Your task to perform on an android device: Go to Amazon Image 0: 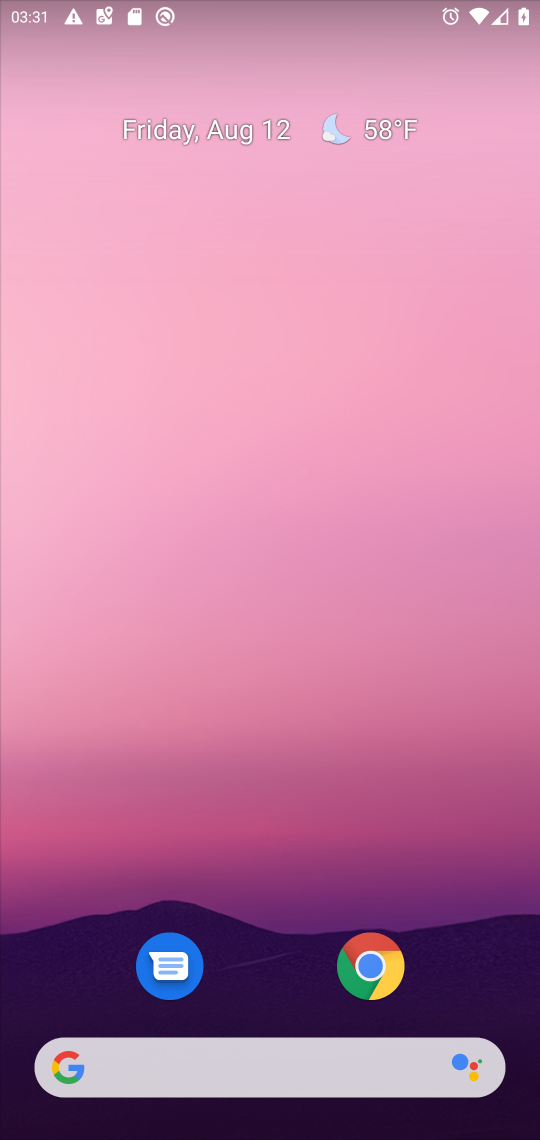
Step 0: drag from (286, 882) to (375, 41)
Your task to perform on an android device: Go to Amazon Image 1: 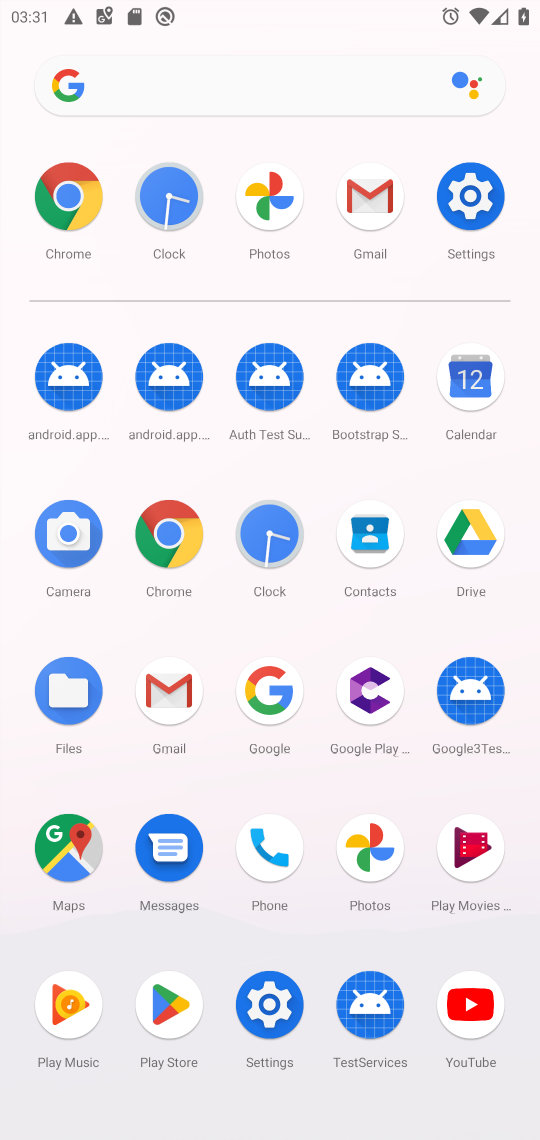
Step 1: click (172, 532)
Your task to perform on an android device: Go to Amazon Image 2: 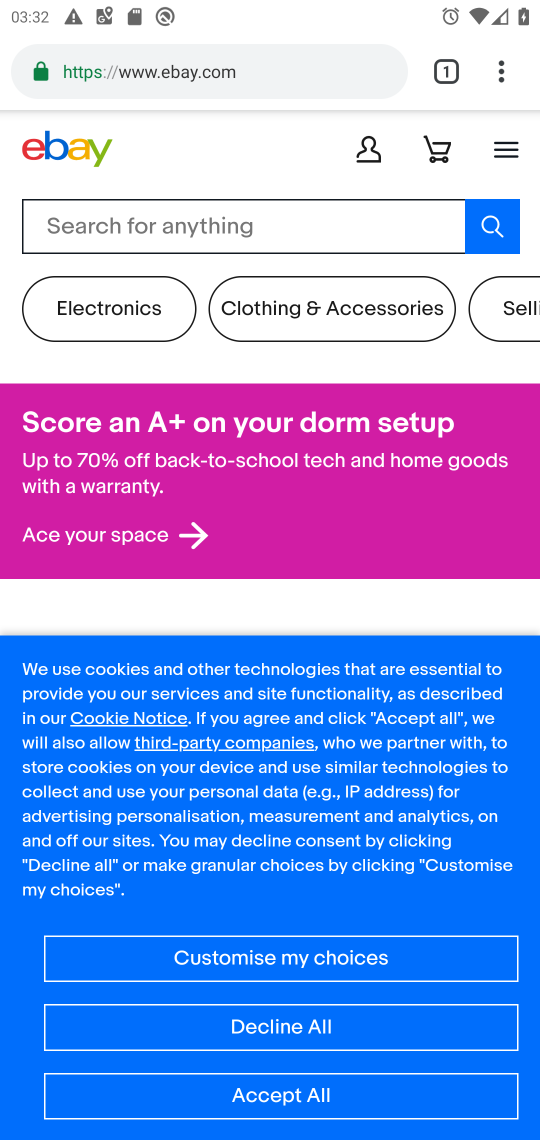
Step 2: click (252, 66)
Your task to perform on an android device: Go to Amazon Image 3: 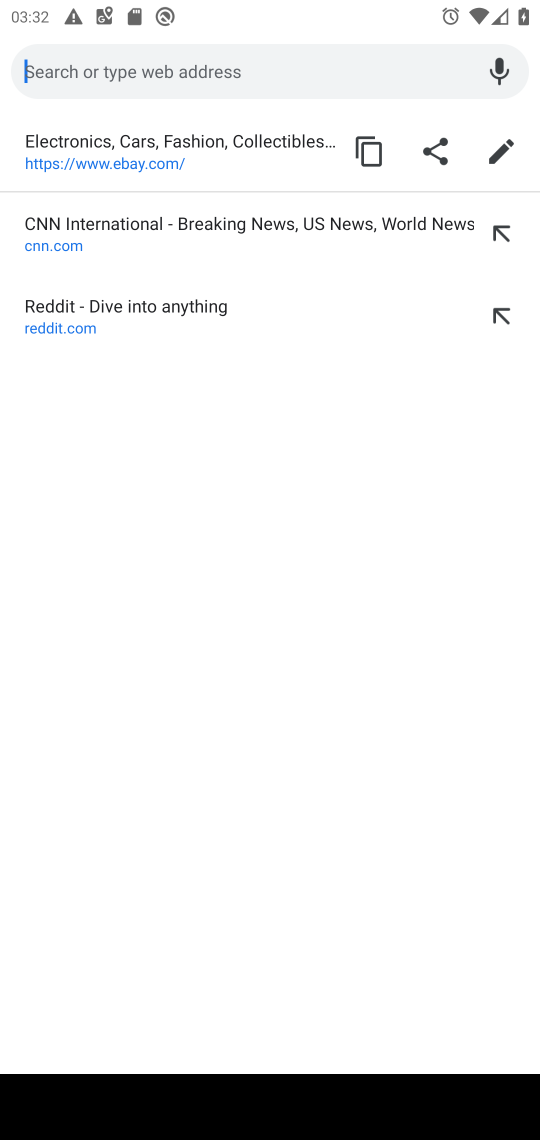
Step 3: type "amazon"
Your task to perform on an android device: Go to Amazon Image 4: 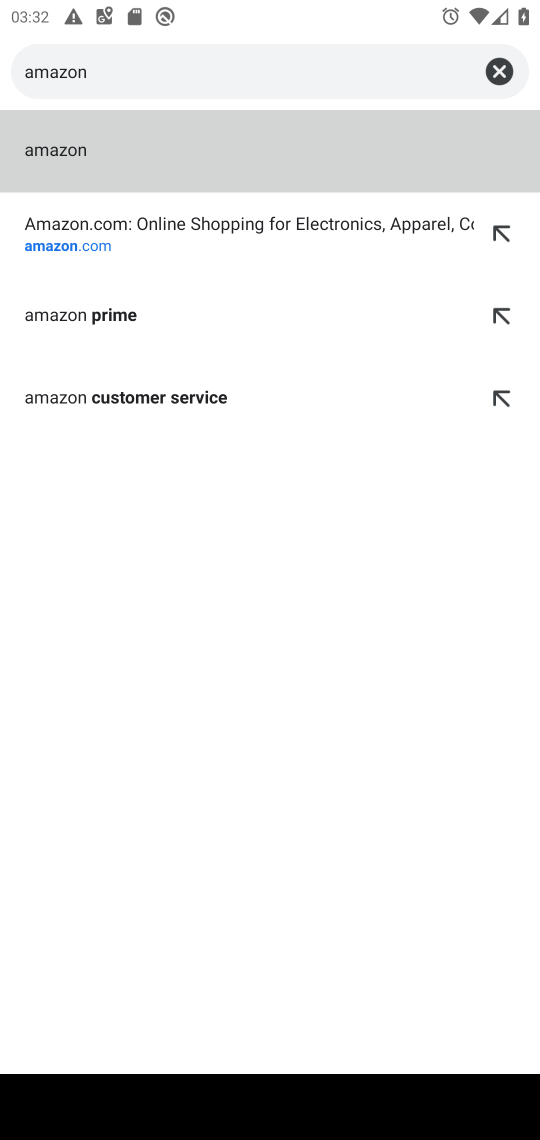
Step 4: click (65, 255)
Your task to perform on an android device: Go to Amazon Image 5: 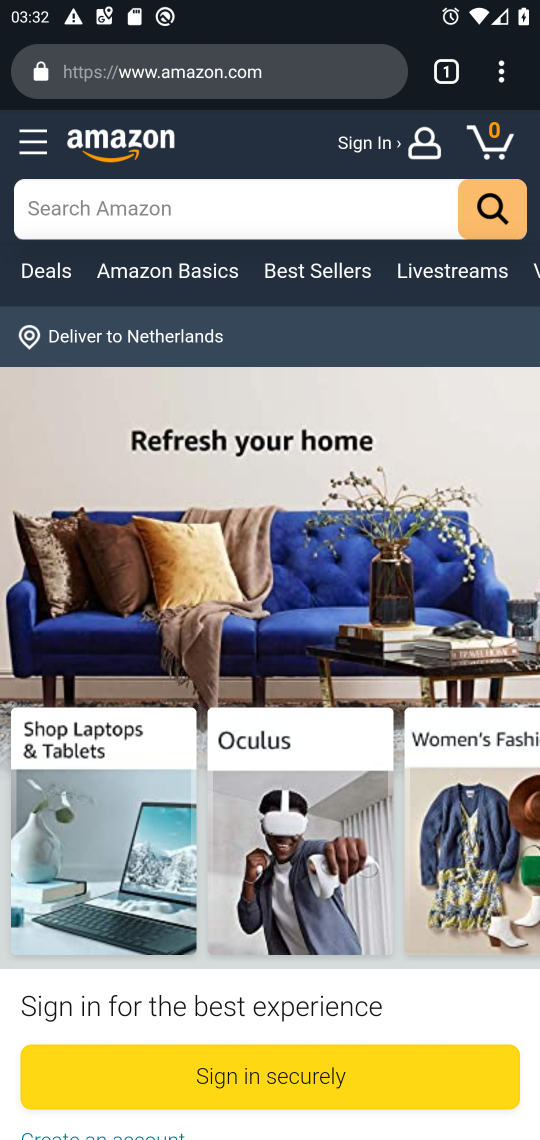
Step 5: task complete